Your task to perform on an android device: Open sound settings Image 0: 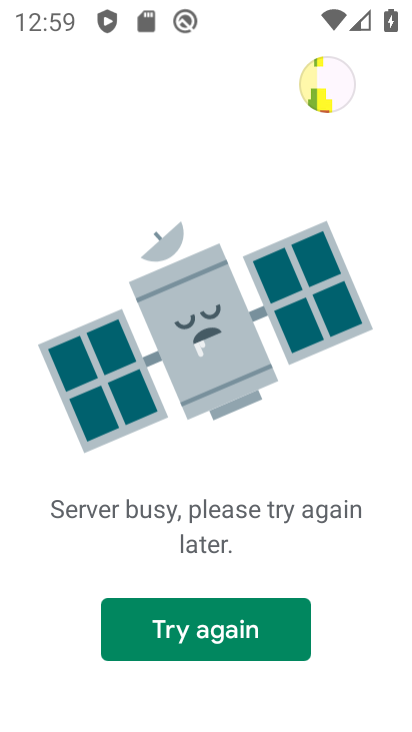
Step 0: press home button
Your task to perform on an android device: Open sound settings Image 1: 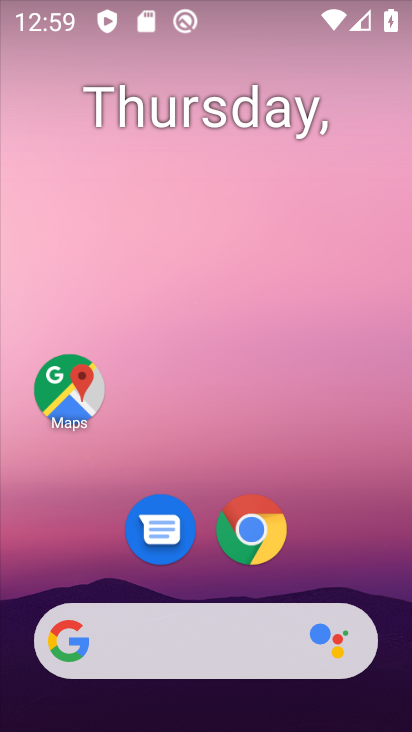
Step 1: drag from (210, 717) to (216, 207)
Your task to perform on an android device: Open sound settings Image 2: 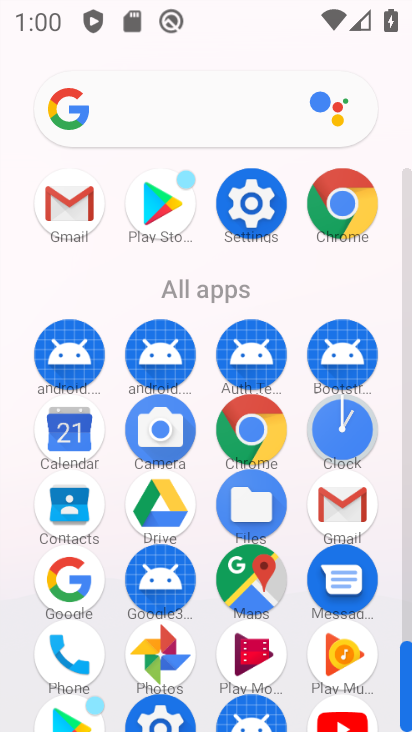
Step 2: click (249, 201)
Your task to perform on an android device: Open sound settings Image 3: 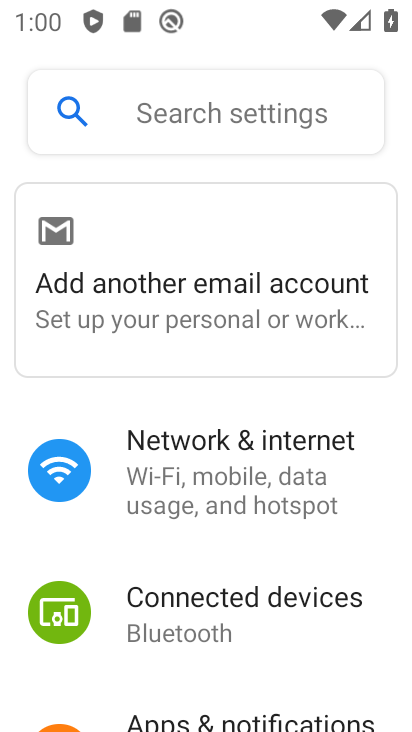
Step 3: drag from (195, 692) to (211, 288)
Your task to perform on an android device: Open sound settings Image 4: 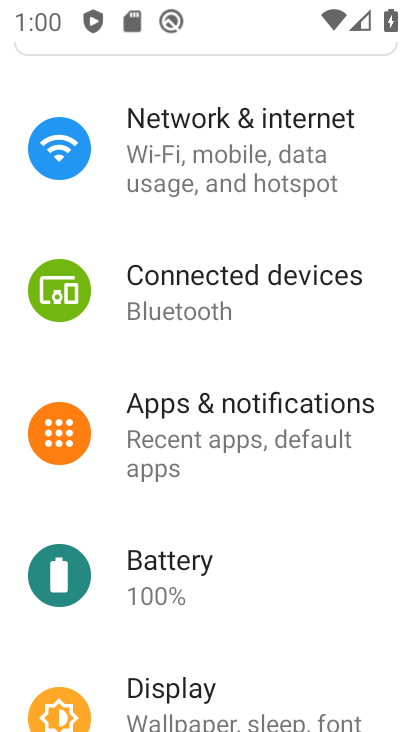
Step 4: drag from (171, 661) to (193, 235)
Your task to perform on an android device: Open sound settings Image 5: 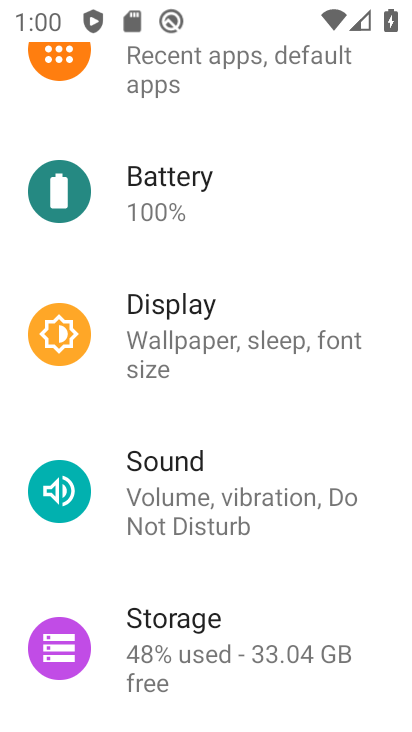
Step 5: click (172, 496)
Your task to perform on an android device: Open sound settings Image 6: 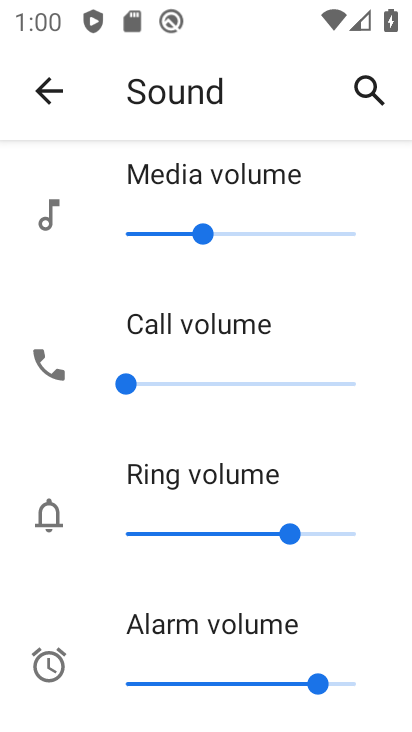
Step 6: task complete